Your task to perform on an android device: Open eBay Image 0: 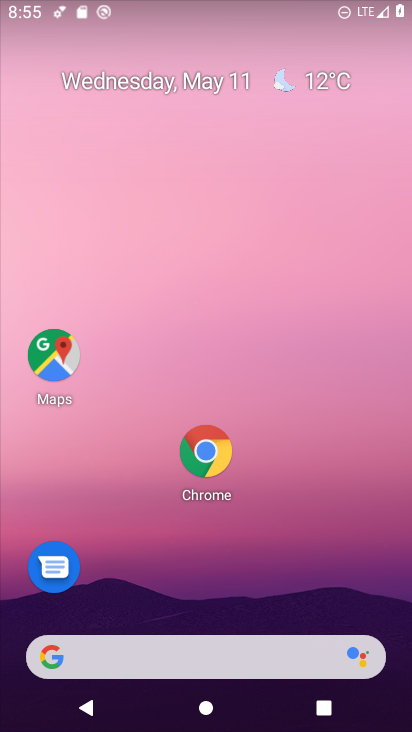
Step 0: click (211, 466)
Your task to perform on an android device: Open eBay Image 1: 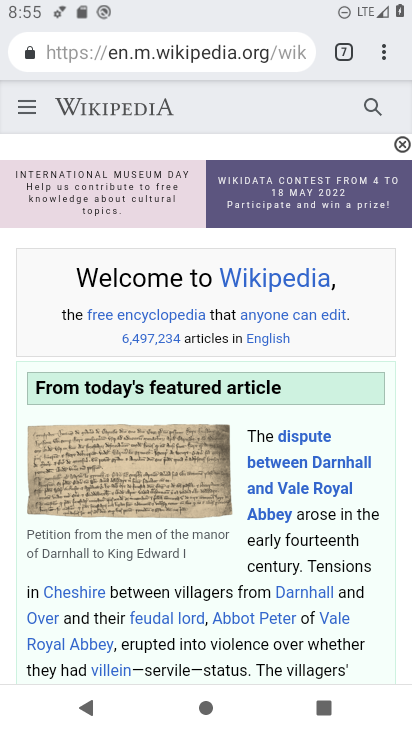
Step 1: drag from (384, 59) to (261, 104)
Your task to perform on an android device: Open eBay Image 2: 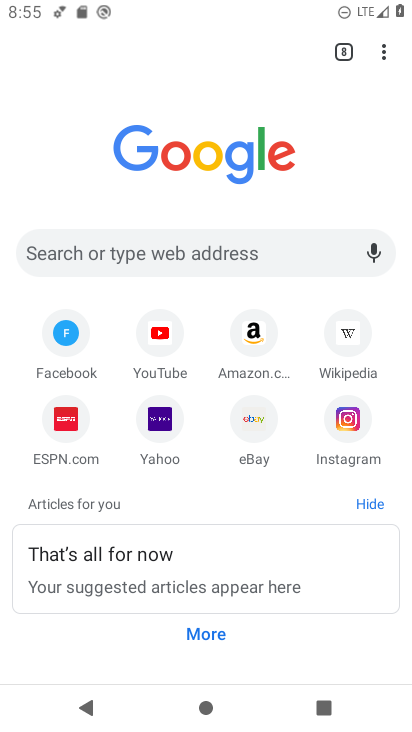
Step 2: click (255, 430)
Your task to perform on an android device: Open eBay Image 3: 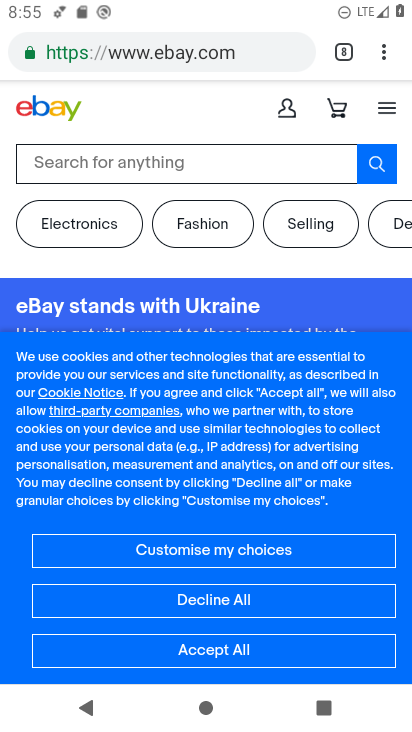
Step 3: task complete